Your task to perform on an android device: change keyboard looks Image 0: 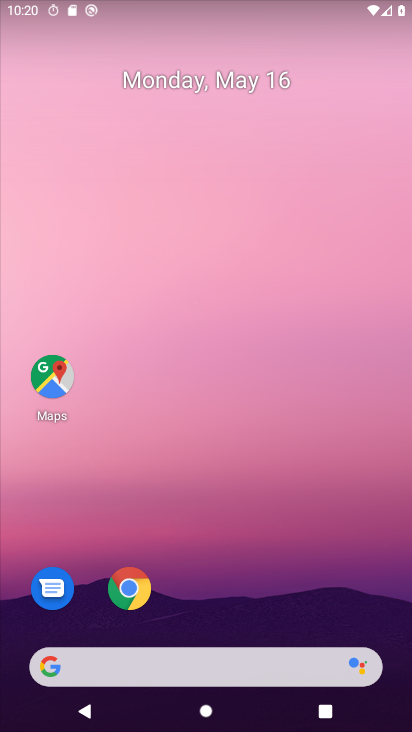
Step 0: press home button
Your task to perform on an android device: change keyboard looks Image 1: 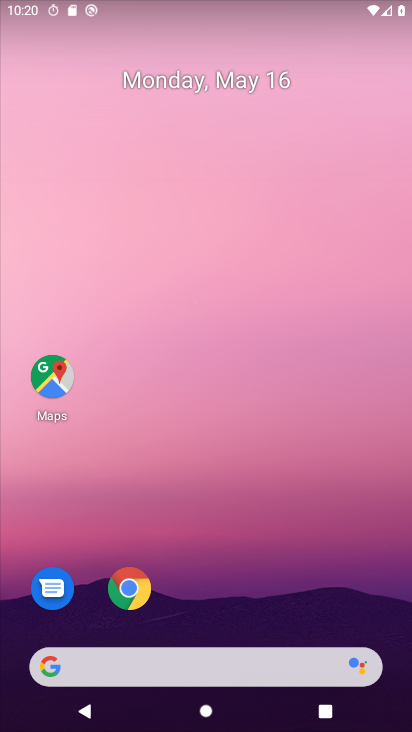
Step 1: drag from (226, 614) to (227, 566)
Your task to perform on an android device: change keyboard looks Image 2: 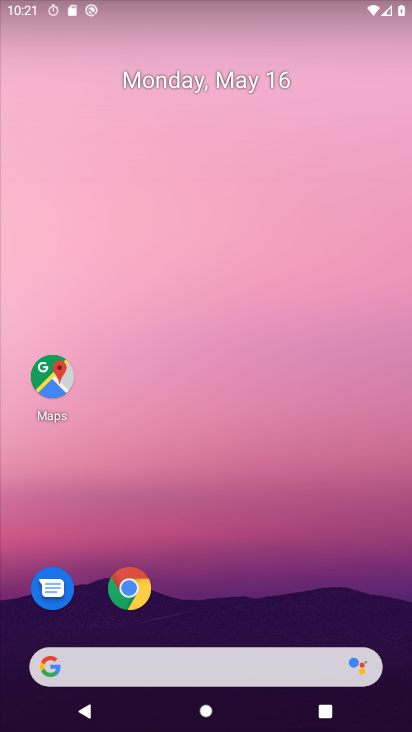
Step 2: drag from (247, 353) to (250, 314)
Your task to perform on an android device: change keyboard looks Image 3: 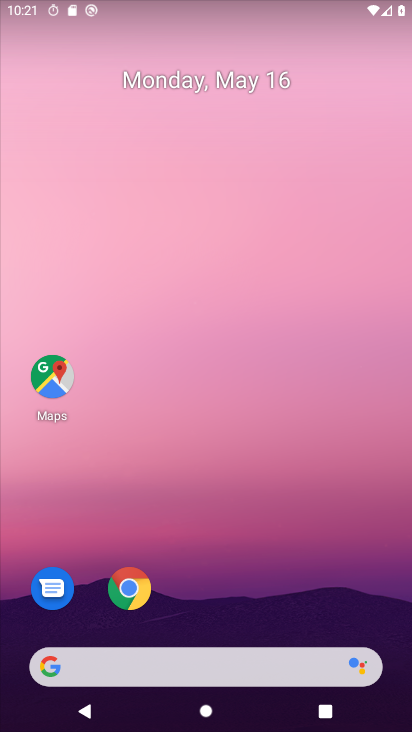
Step 3: drag from (233, 626) to (252, 216)
Your task to perform on an android device: change keyboard looks Image 4: 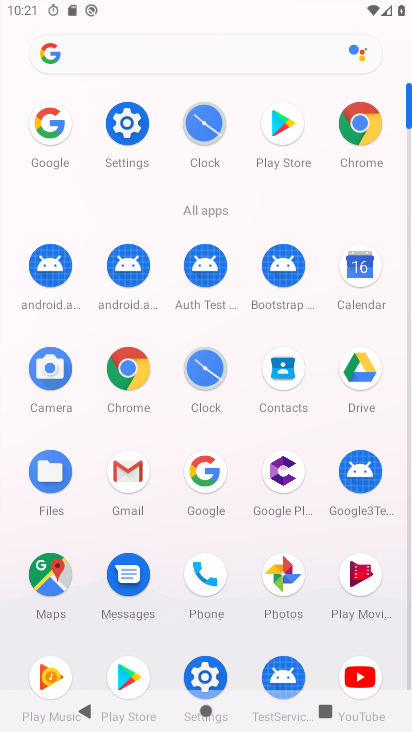
Step 4: click (211, 665)
Your task to perform on an android device: change keyboard looks Image 5: 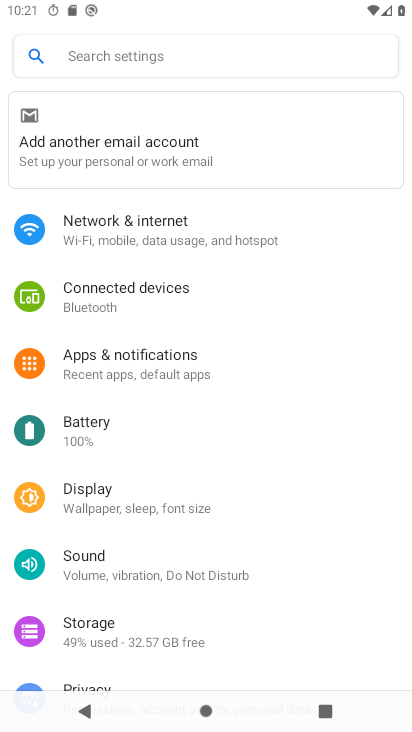
Step 5: drag from (195, 639) to (206, 270)
Your task to perform on an android device: change keyboard looks Image 6: 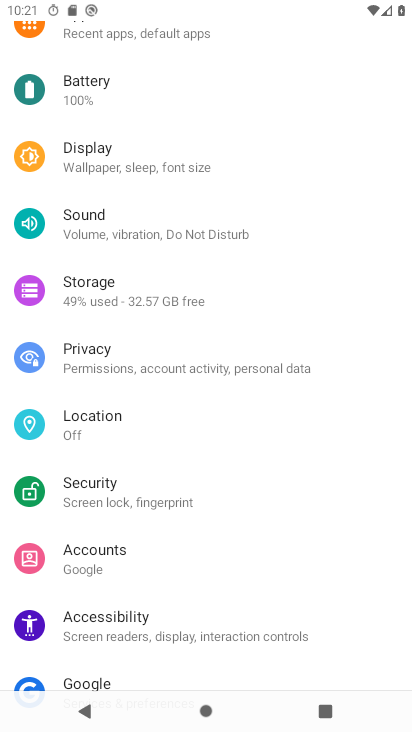
Step 6: drag from (159, 616) to (157, 226)
Your task to perform on an android device: change keyboard looks Image 7: 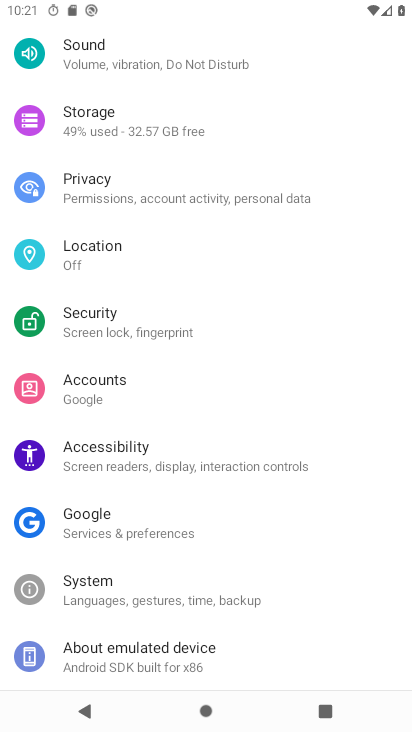
Step 7: click (115, 579)
Your task to perform on an android device: change keyboard looks Image 8: 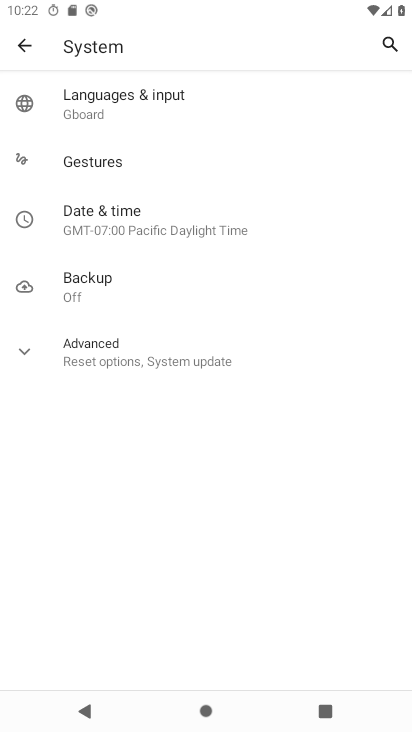
Step 8: click (58, 105)
Your task to perform on an android device: change keyboard looks Image 9: 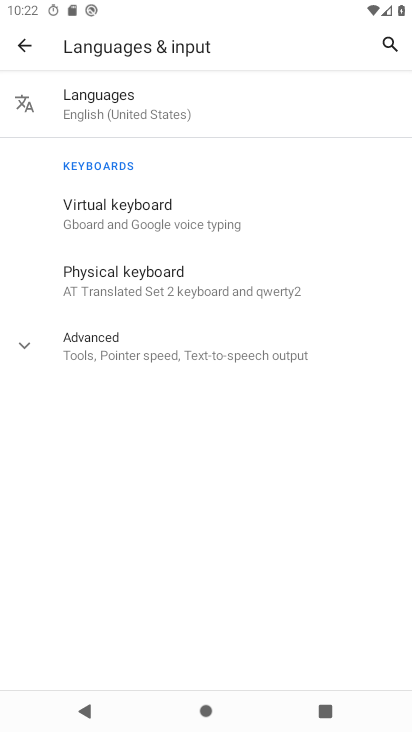
Step 9: click (104, 347)
Your task to perform on an android device: change keyboard looks Image 10: 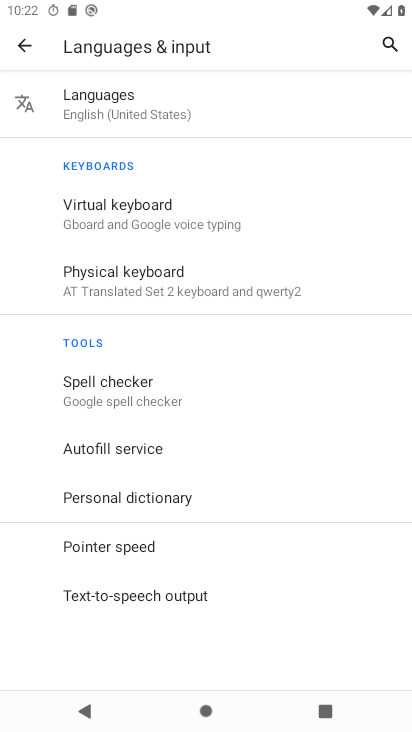
Step 10: click (141, 215)
Your task to perform on an android device: change keyboard looks Image 11: 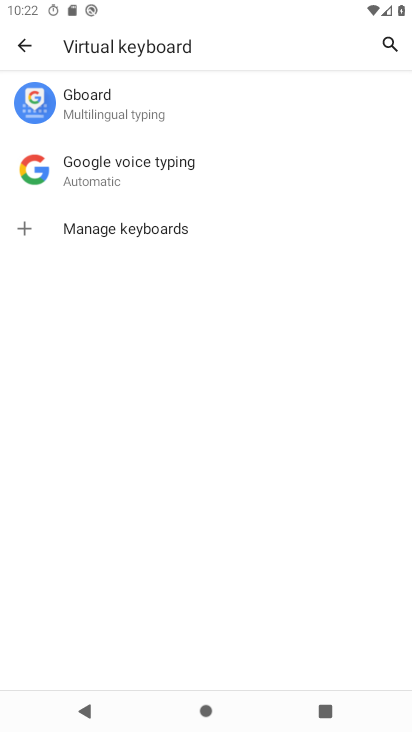
Step 11: click (108, 93)
Your task to perform on an android device: change keyboard looks Image 12: 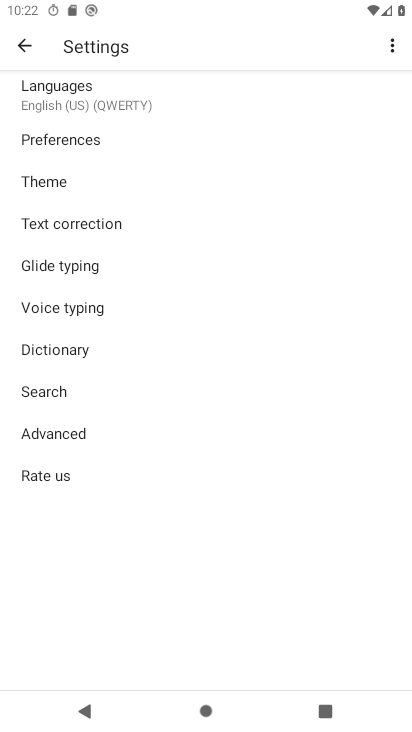
Step 12: click (72, 174)
Your task to perform on an android device: change keyboard looks Image 13: 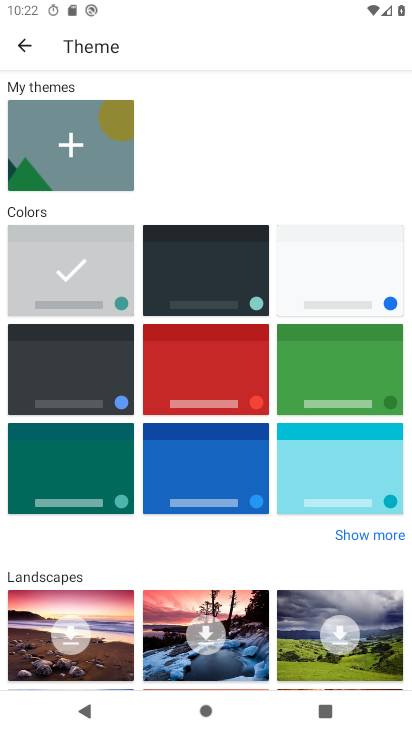
Step 13: click (215, 393)
Your task to perform on an android device: change keyboard looks Image 14: 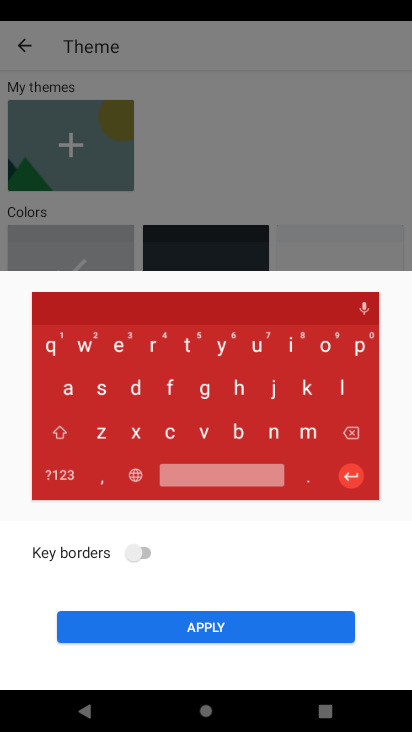
Step 14: click (204, 627)
Your task to perform on an android device: change keyboard looks Image 15: 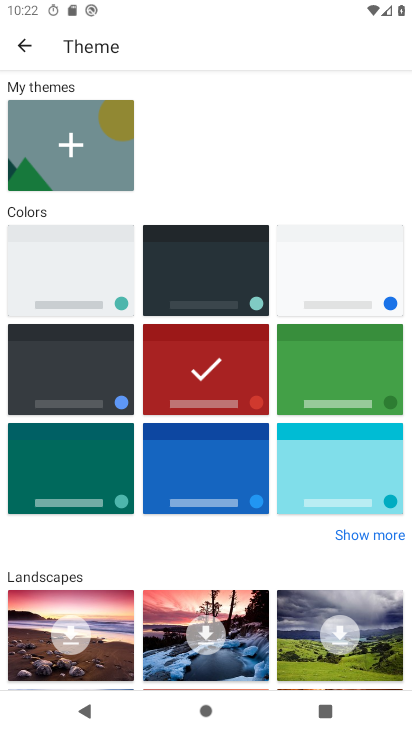
Step 15: task complete